Your task to perform on an android device: Check the news Image 0: 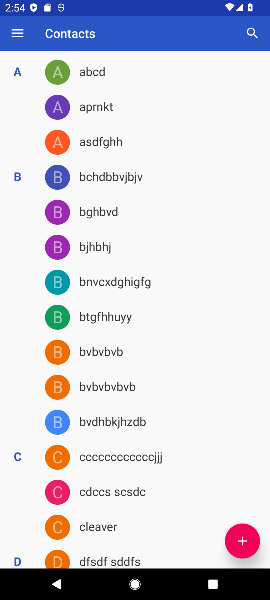
Step 0: press home button
Your task to perform on an android device: Check the news Image 1: 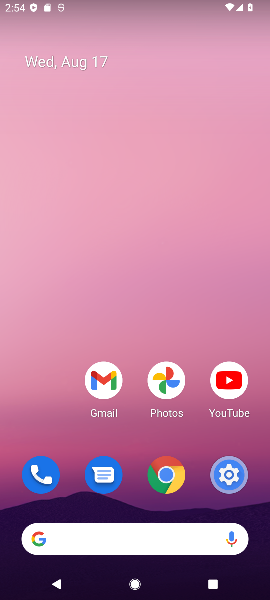
Step 1: click (120, 529)
Your task to perform on an android device: Check the news Image 2: 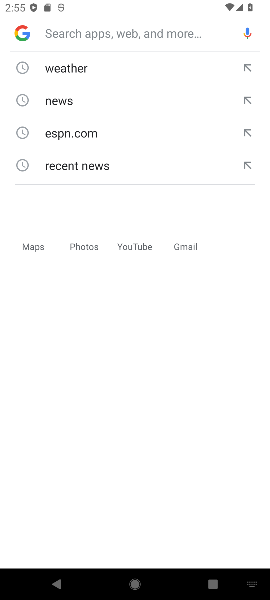
Step 2: click (49, 94)
Your task to perform on an android device: Check the news Image 3: 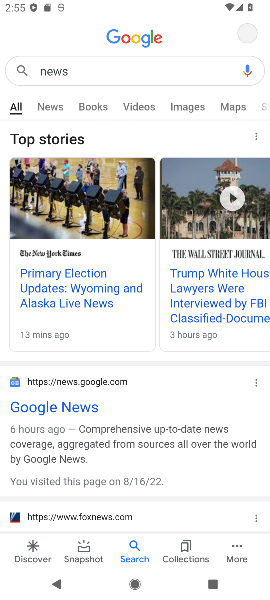
Step 3: click (52, 109)
Your task to perform on an android device: Check the news Image 4: 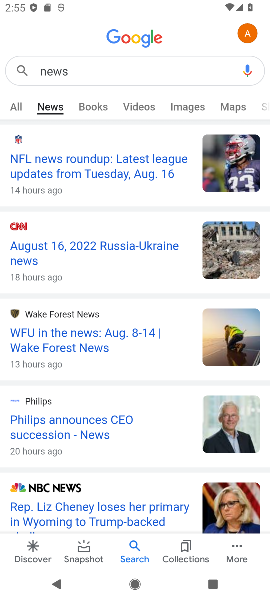
Step 4: task complete